Your task to perform on an android device: Search for seafood restaurants on Google Maps Image 0: 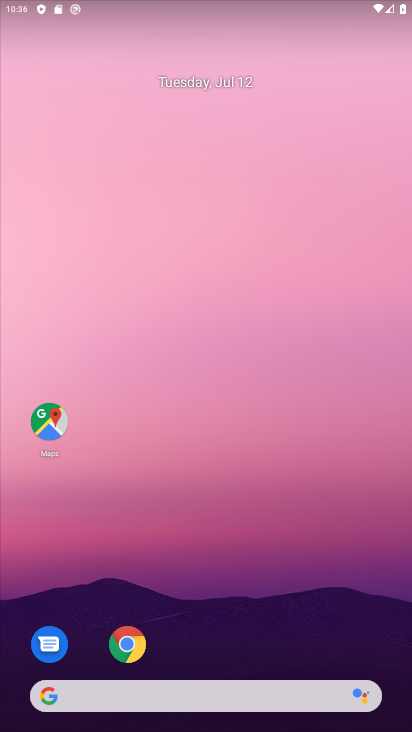
Step 0: drag from (224, 652) to (234, 8)
Your task to perform on an android device: Search for seafood restaurants on Google Maps Image 1: 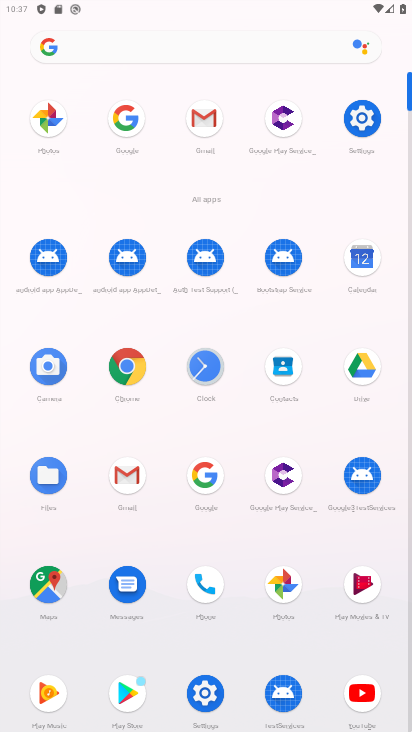
Step 1: click (40, 594)
Your task to perform on an android device: Search for seafood restaurants on Google Maps Image 2: 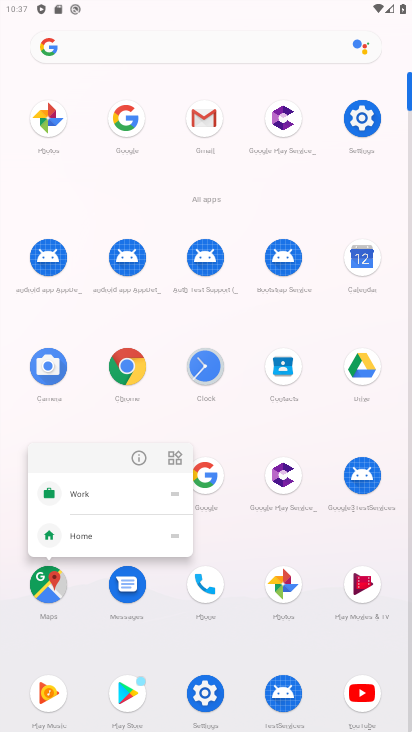
Step 2: click (43, 564)
Your task to perform on an android device: Search for seafood restaurants on Google Maps Image 3: 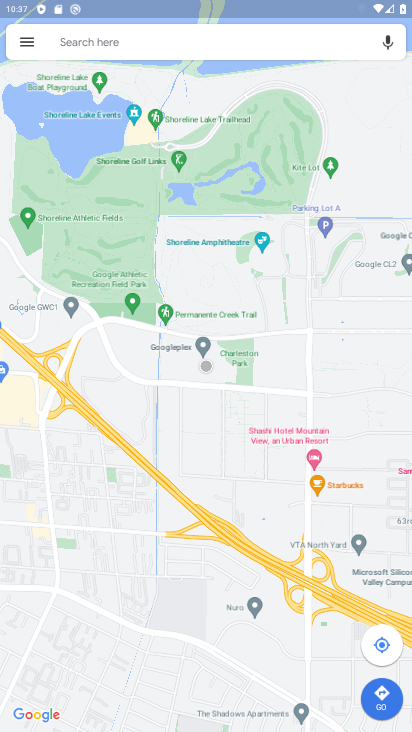
Step 3: click (197, 51)
Your task to perform on an android device: Search for seafood restaurants on Google Maps Image 4: 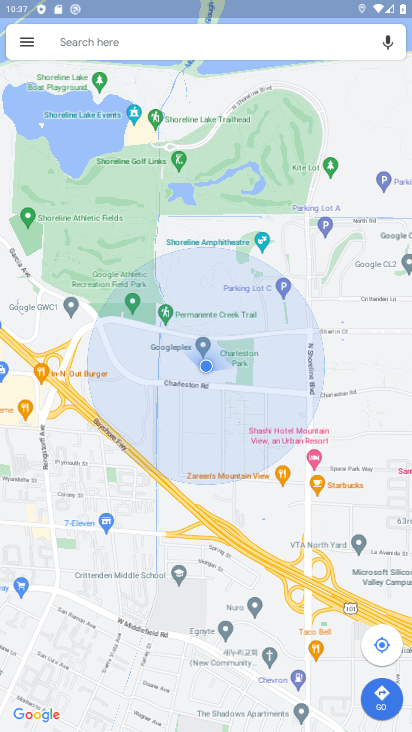
Step 4: click (224, 34)
Your task to perform on an android device: Search for seafood restaurants on Google Maps Image 5: 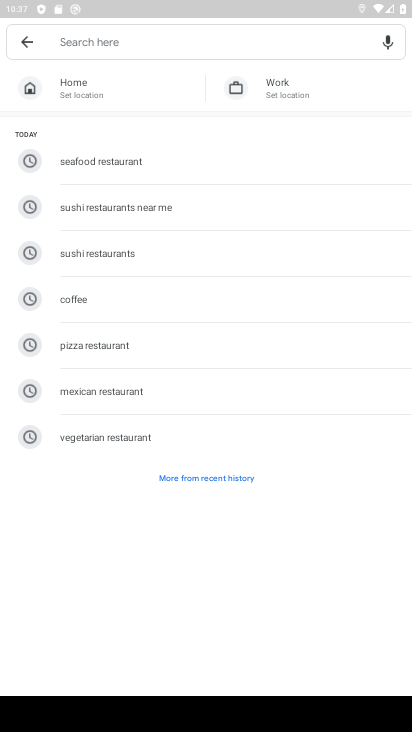
Step 5: click (129, 165)
Your task to perform on an android device: Search for seafood restaurants on Google Maps Image 6: 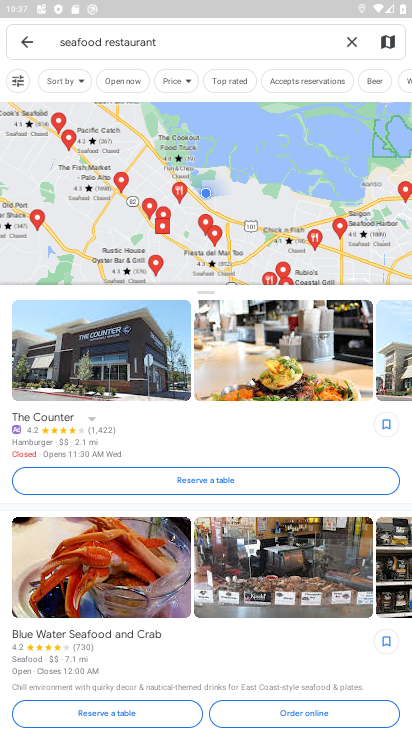
Step 6: task complete